Your task to perform on an android device: Open location settings Image 0: 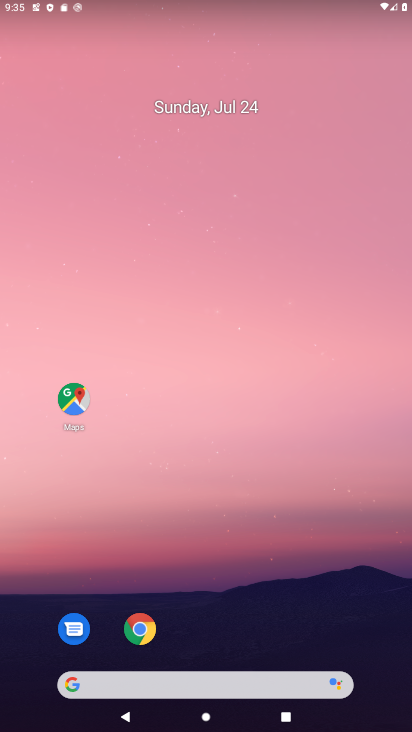
Step 0: drag from (287, 639) to (376, 73)
Your task to perform on an android device: Open location settings Image 1: 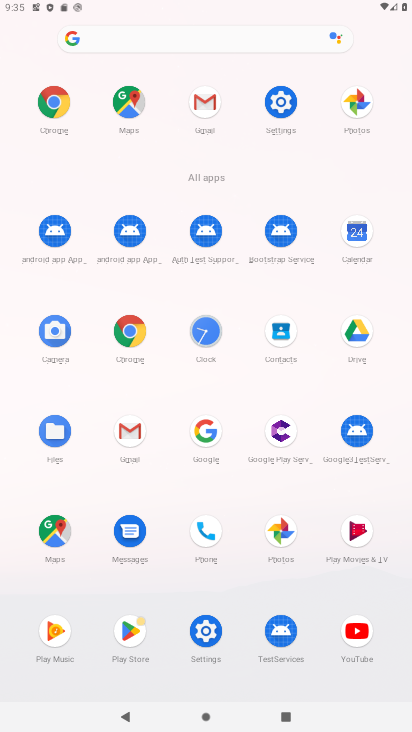
Step 1: click (210, 641)
Your task to perform on an android device: Open location settings Image 2: 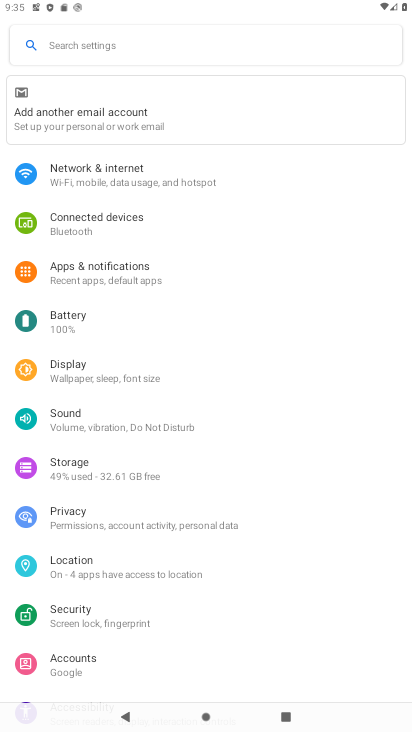
Step 2: click (82, 554)
Your task to perform on an android device: Open location settings Image 3: 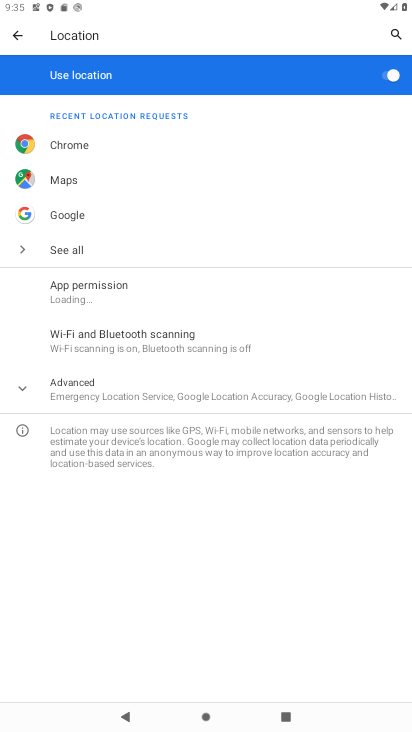
Step 3: task complete